Your task to perform on an android device: Open the contacts Image 0: 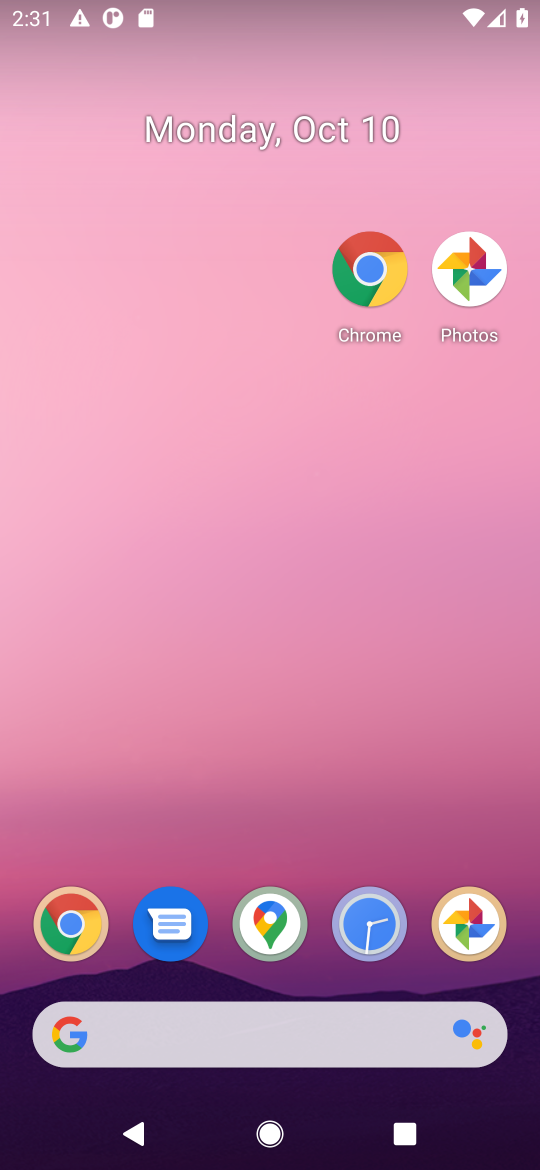
Step 0: drag from (311, 867) to (288, 3)
Your task to perform on an android device: Open the contacts Image 1: 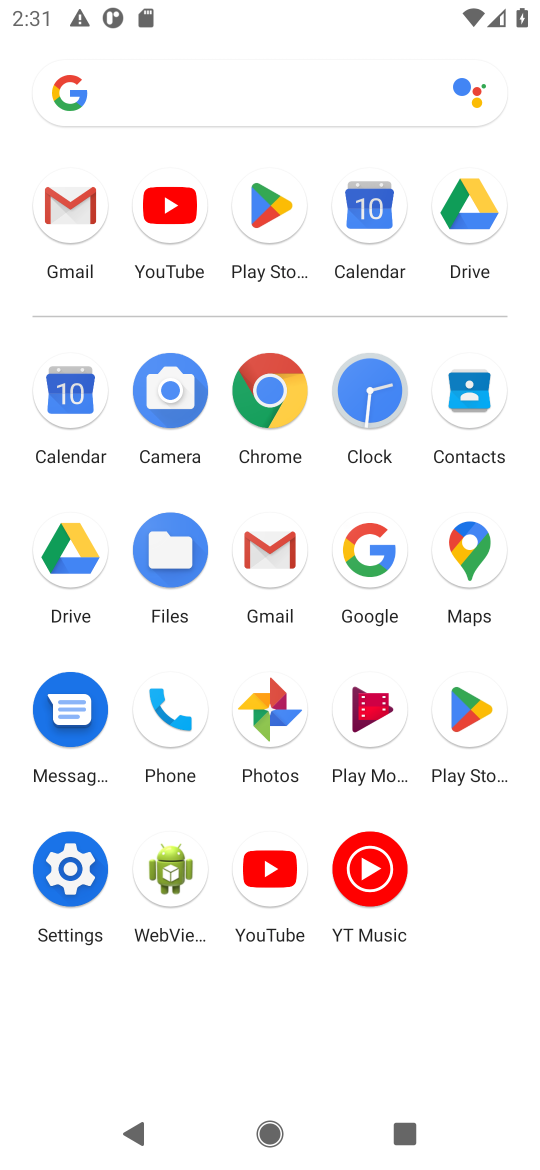
Step 1: click (273, 391)
Your task to perform on an android device: Open the contacts Image 2: 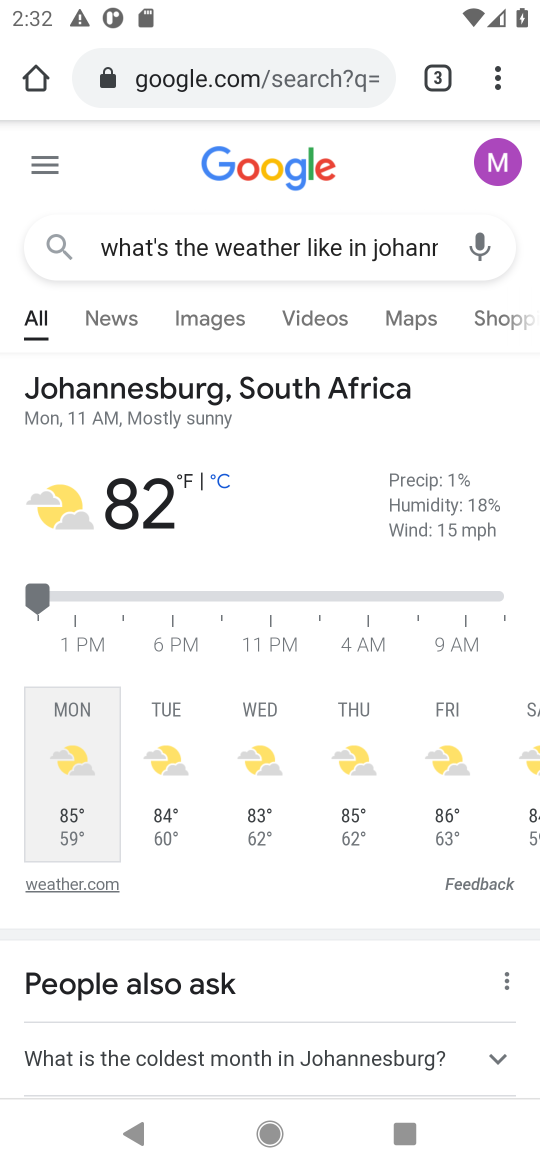
Step 2: click (300, 80)
Your task to perform on an android device: Open the contacts Image 3: 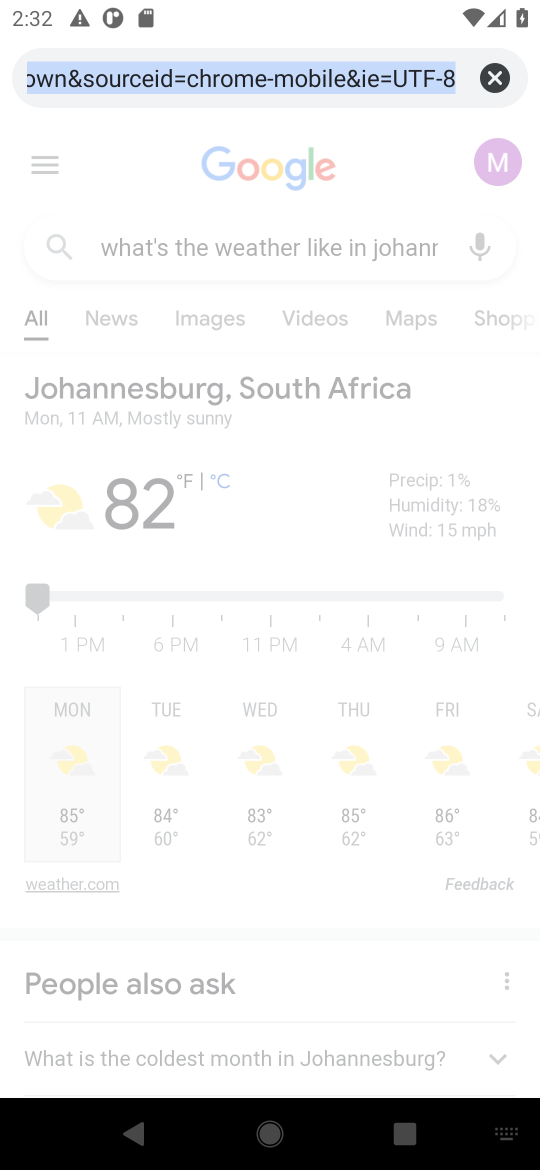
Step 3: press home button
Your task to perform on an android device: Open the contacts Image 4: 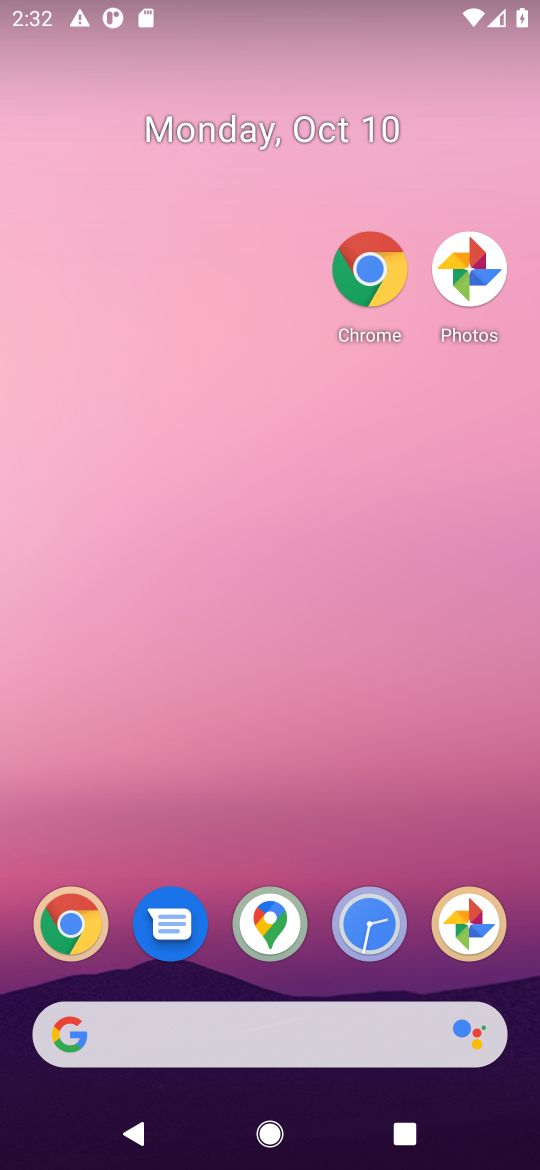
Step 4: drag from (336, 854) to (443, 51)
Your task to perform on an android device: Open the contacts Image 5: 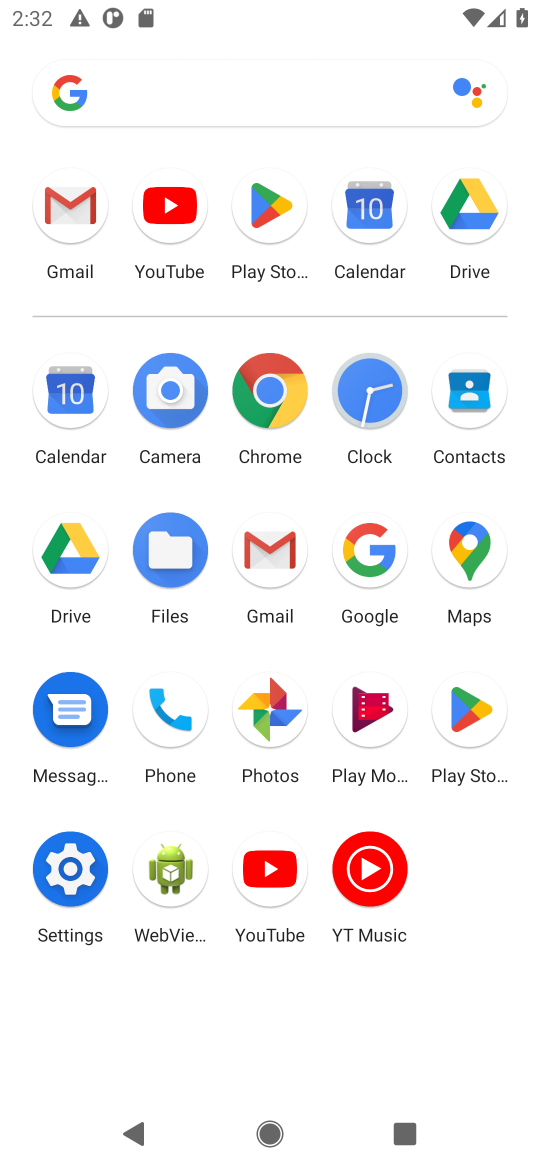
Step 5: click (471, 380)
Your task to perform on an android device: Open the contacts Image 6: 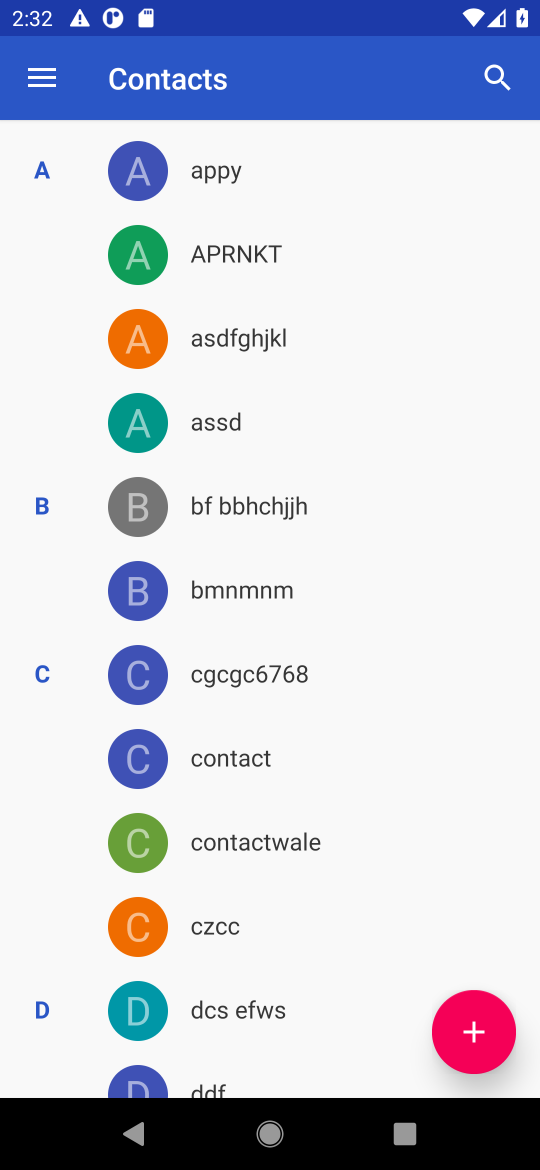
Step 6: task complete